Your task to perform on an android device: Go to internet settings Image 0: 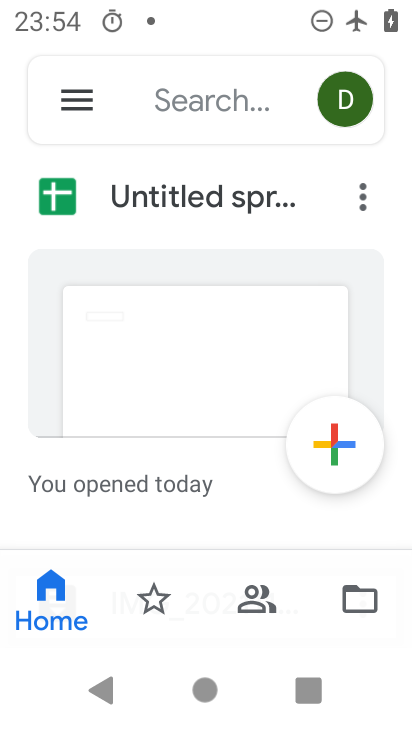
Step 0: drag from (224, 456) to (242, 191)
Your task to perform on an android device: Go to internet settings Image 1: 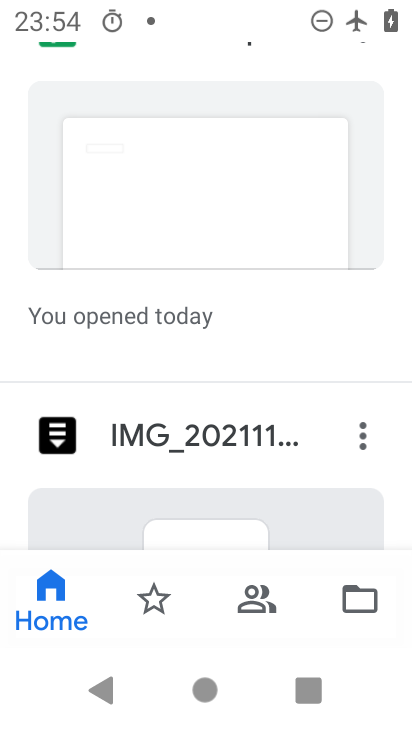
Step 1: drag from (241, 165) to (265, 586)
Your task to perform on an android device: Go to internet settings Image 2: 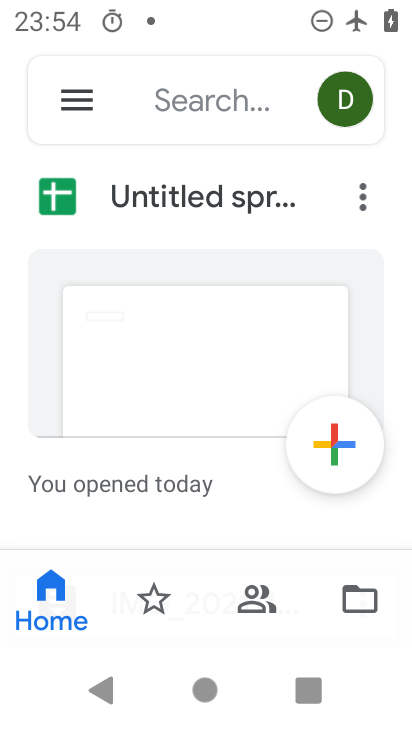
Step 2: press home button
Your task to perform on an android device: Go to internet settings Image 3: 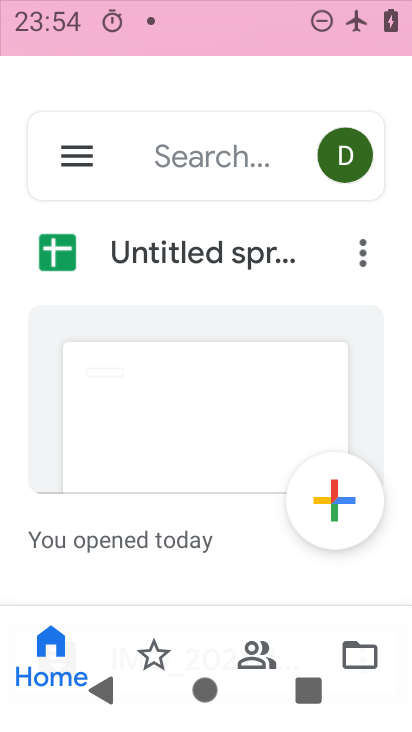
Step 3: drag from (223, 526) to (255, 155)
Your task to perform on an android device: Go to internet settings Image 4: 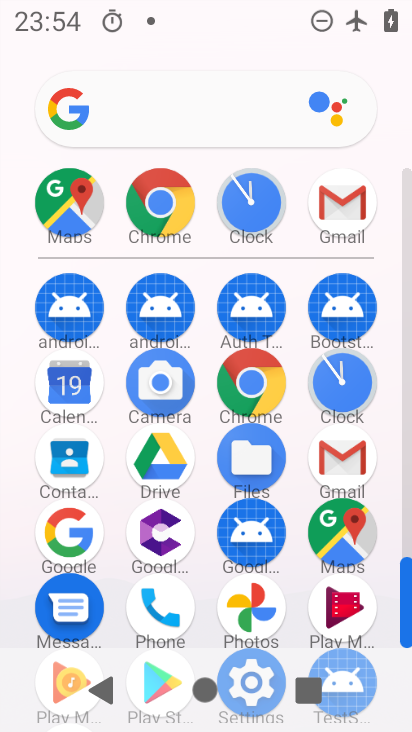
Step 4: click (159, 203)
Your task to perform on an android device: Go to internet settings Image 5: 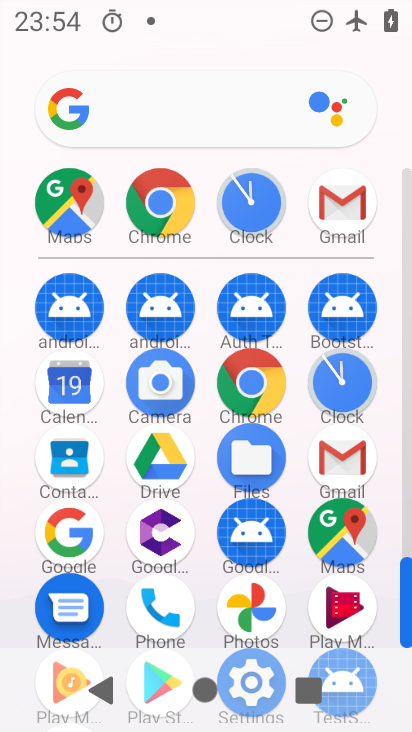
Step 5: click (159, 203)
Your task to perform on an android device: Go to internet settings Image 6: 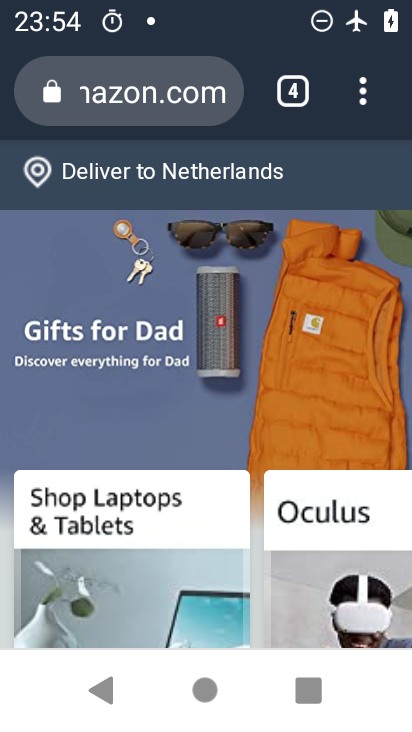
Step 6: click (305, 96)
Your task to perform on an android device: Go to internet settings Image 7: 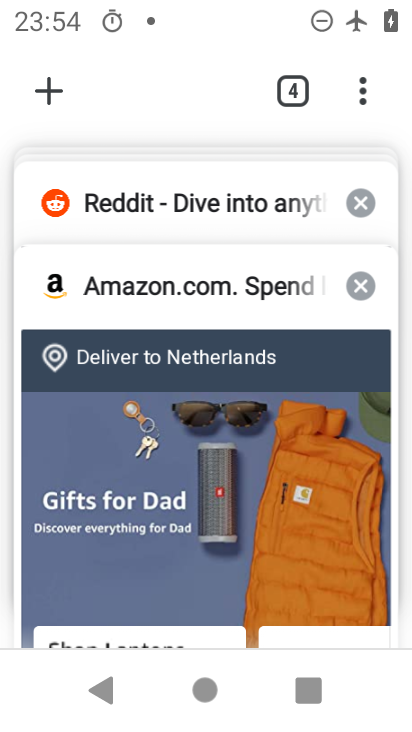
Step 7: click (47, 74)
Your task to perform on an android device: Go to internet settings Image 8: 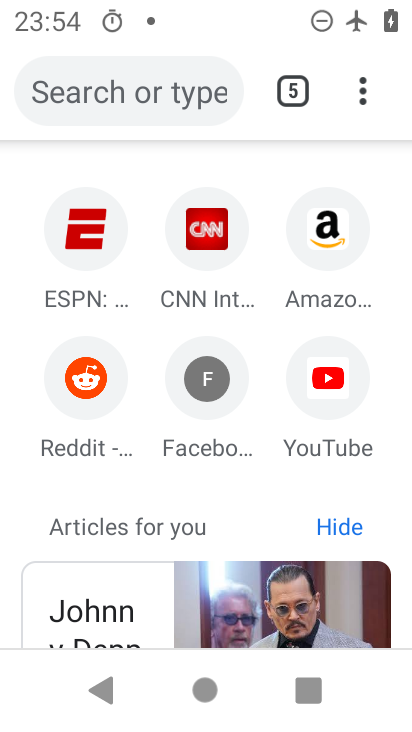
Step 8: click (145, 106)
Your task to perform on an android device: Go to internet settings Image 9: 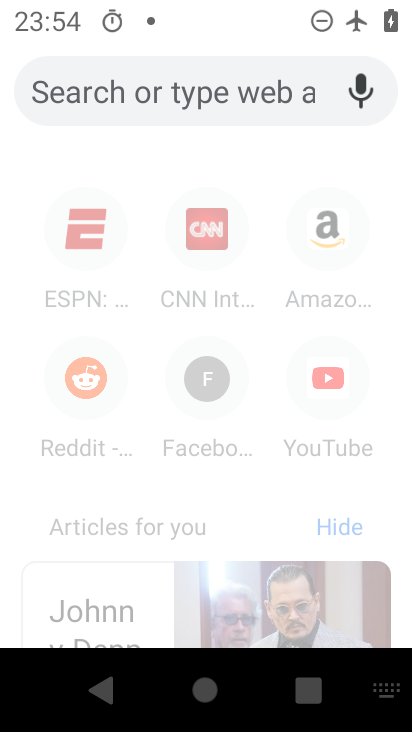
Step 9: press home button
Your task to perform on an android device: Go to internet settings Image 10: 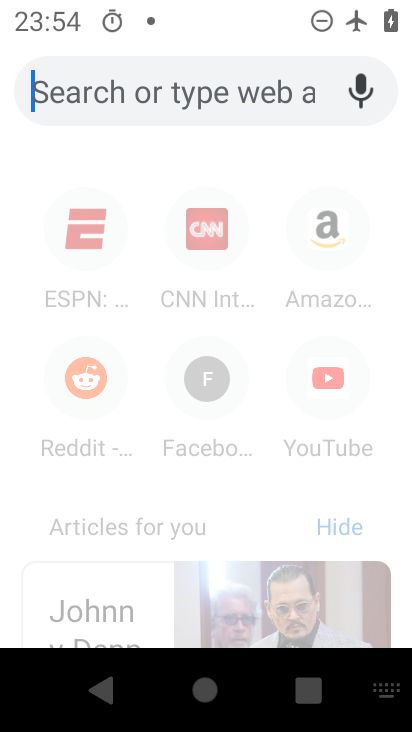
Step 10: press home button
Your task to perform on an android device: Go to internet settings Image 11: 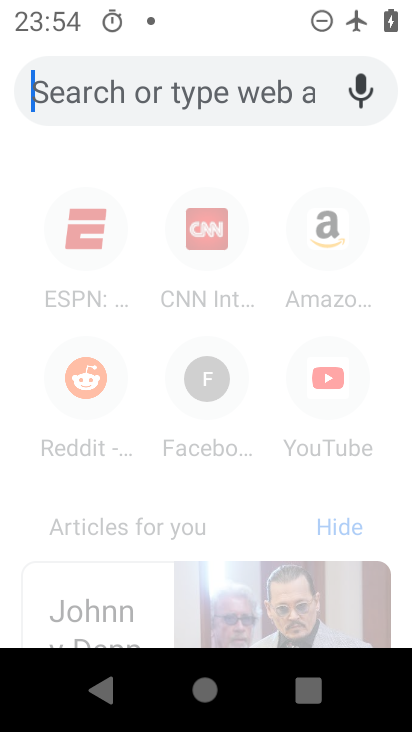
Step 11: drag from (213, 466) to (287, 122)
Your task to perform on an android device: Go to internet settings Image 12: 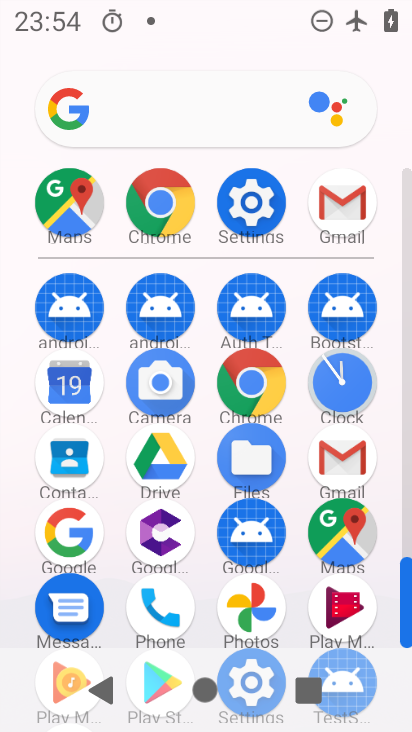
Step 12: click (262, 195)
Your task to perform on an android device: Go to internet settings Image 13: 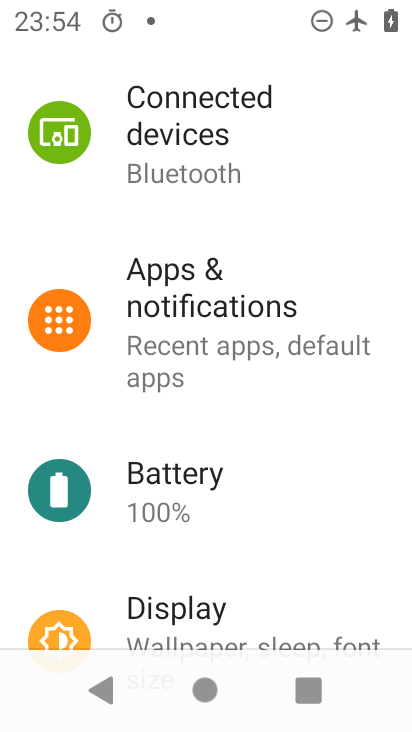
Step 13: drag from (199, 211) to (330, 689)
Your task to perform on an android device: Go to internet settings Image 14: 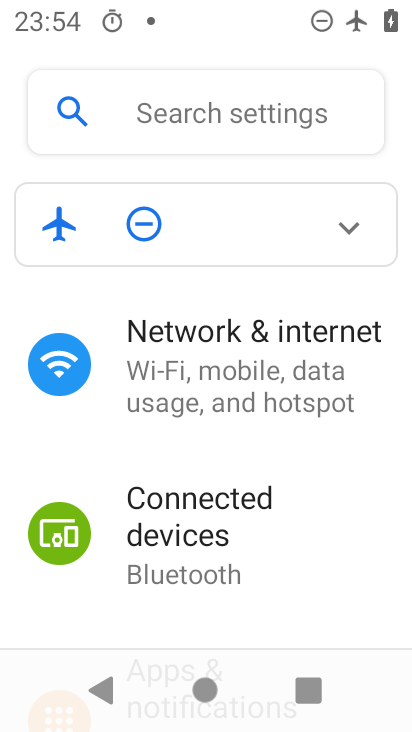
Step 14: click (190, 378)
Your task to perform on an android device: Go to internet settings Image 15: 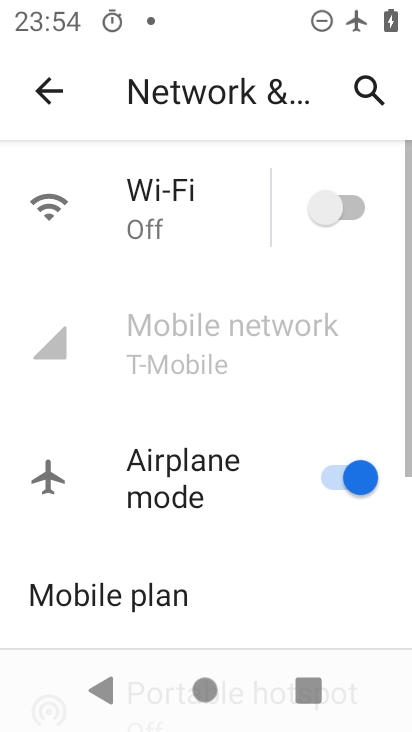
Step 15: task complete